Your task to perform on an android device: Search for razer thresher on ebay.com, select the first entry, add it to the cart, then select checkout. Image 0: 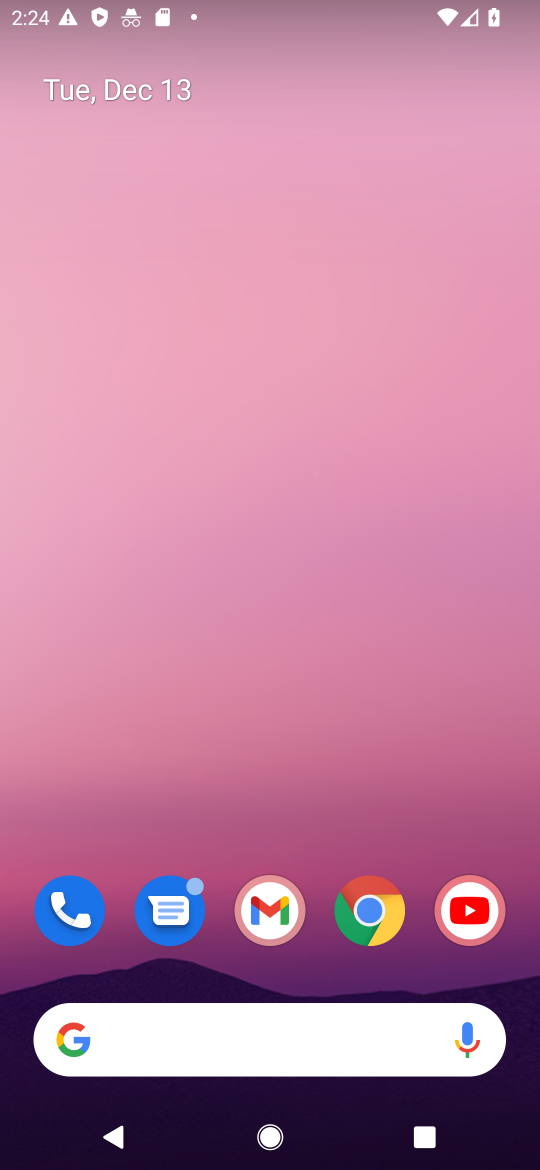
Step 0: click (376, 904)
Your task to perform on an android device: Search for razer thresher on ebay.com, select the first entry, add it to the cart, then select checkout. Image 1: 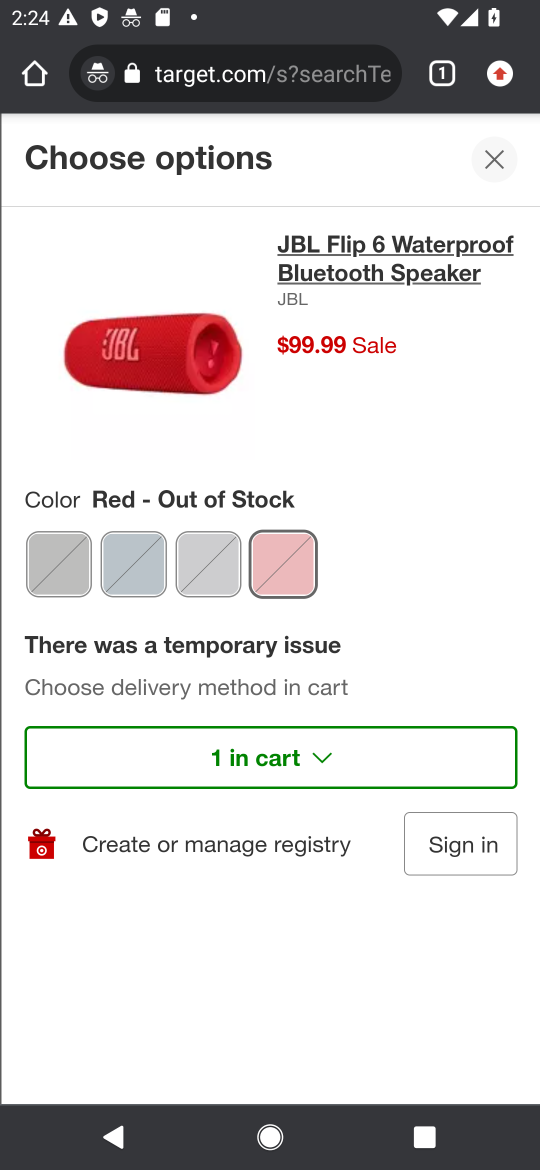
Step 1: click (299, 75)
Your task to perform on an android device: Search for razer thresher on ebay.com, select the first entry, add it to the cart, then select checkout. Image 2: 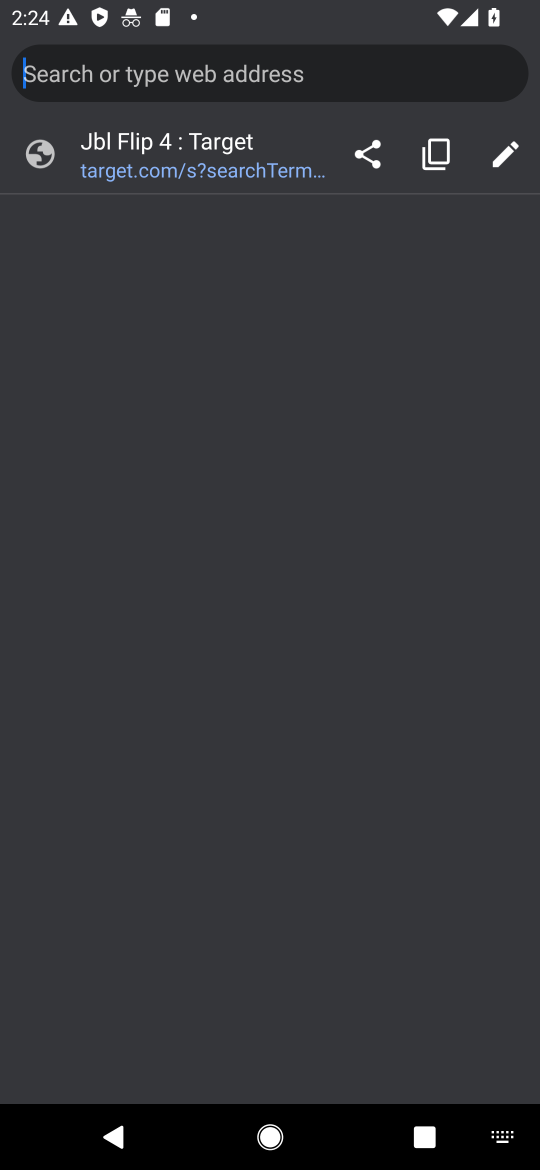
Step 2: type "EBAY"
Your task to perform on an android device: Search for razer thresher on ebay.com, select the first entry, add it to the cart, then select checkout. Image 3: 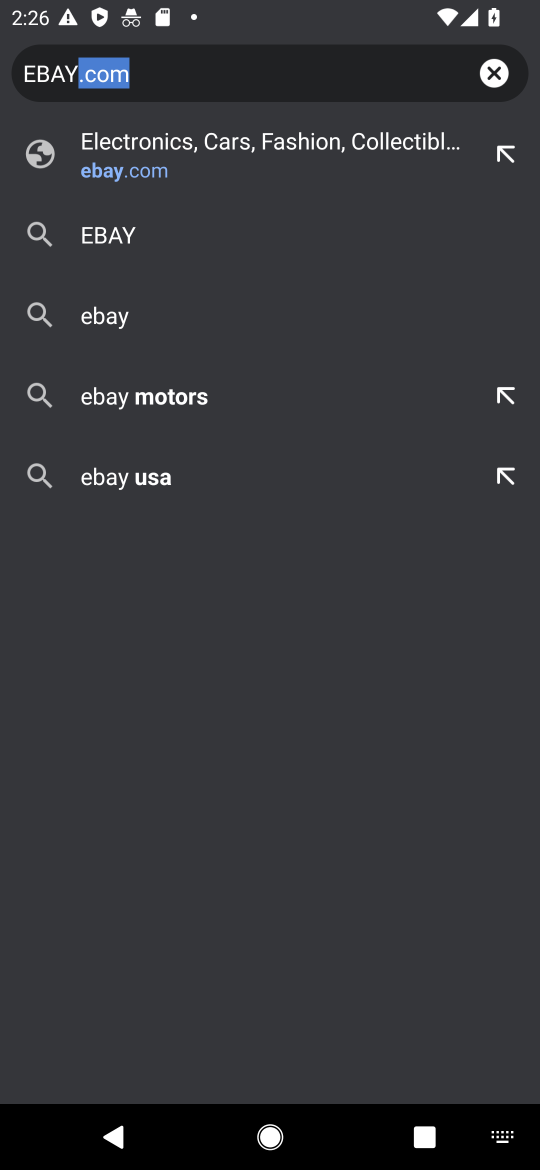
Step 3: click (175, 162)
Your task to perform on an android device: Search for razer thresher on ebay.com, select the first entry, add it to the cart, then select checkout. Image 4: 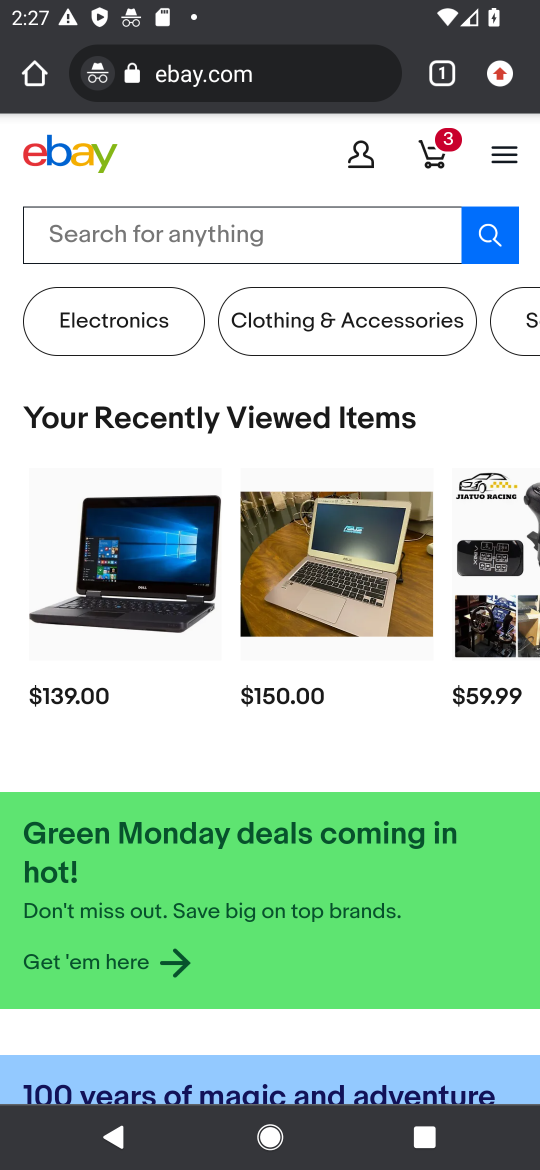
Step 4: click (240, 237)
Your task to perform on an android device: Search for razer thresher on ebay.com, select the first entry, add it to the cart, then select checkout. Image 5: 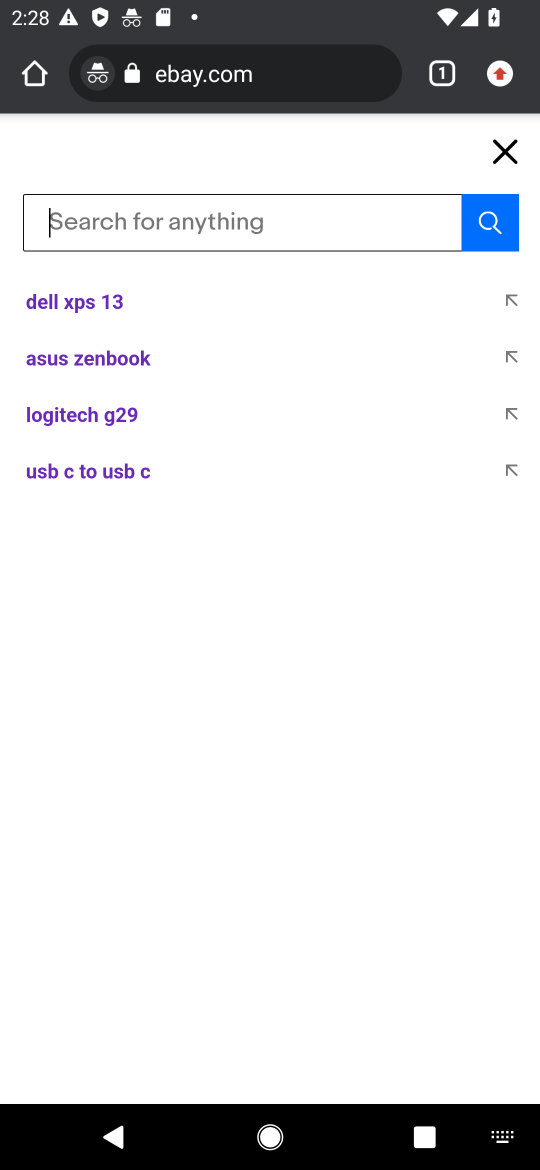
Step 5: type "RAZER THRESHER"
Your task to perform on an android device: Search for razer thresher on ebay.com, select the first entry, add it to the cart, then select checkout. Image 6: 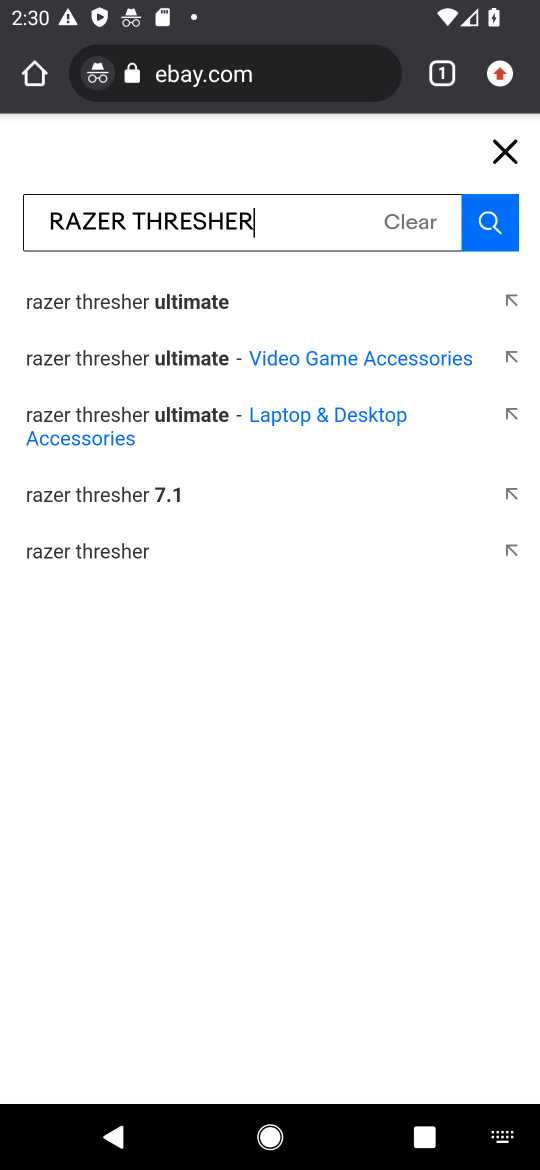
Step 6: click (113, 295)
Your task to perform on an android device: Search for razer thresher on ebay.com, select the first entry, add it to the cart, then select checkout. Image 7: 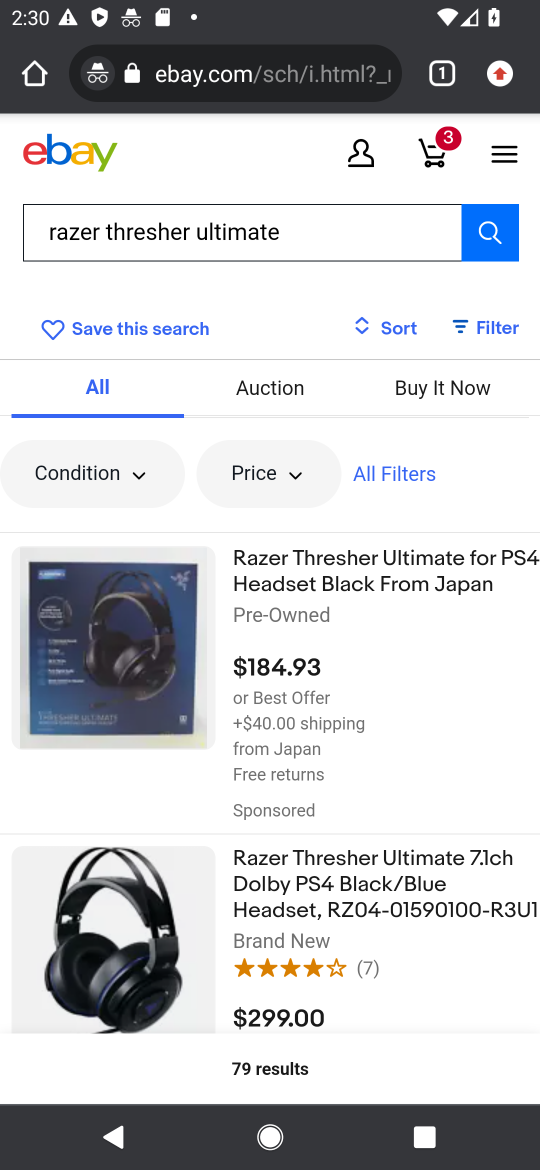
Step 7: click (440, 603)
Your task to perform on an android device: Search for razer thresher on ebay.com, select the first entry, add it to the cart, then select checkout. Image 8: 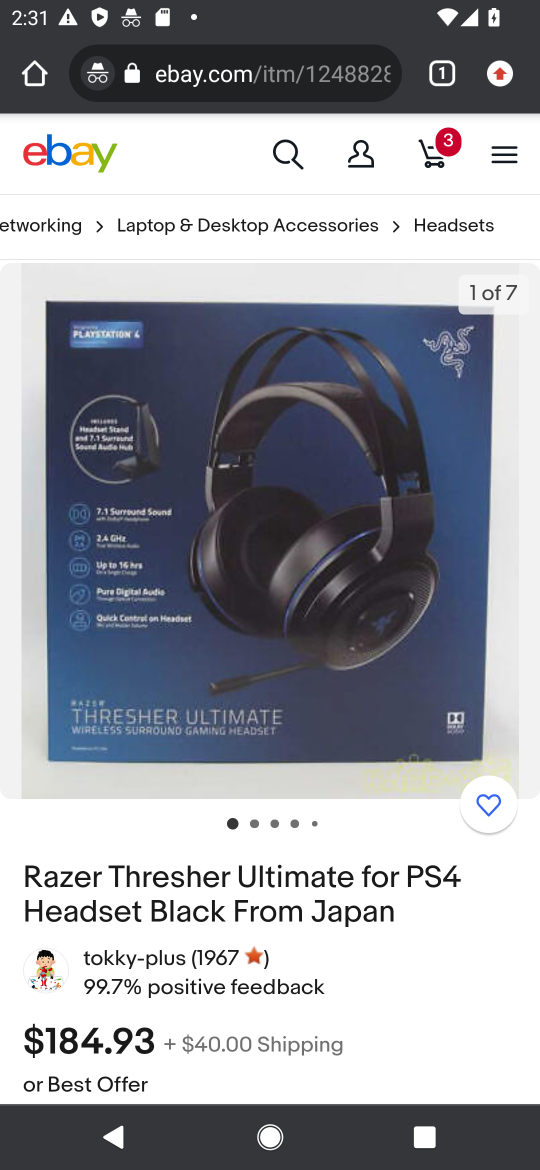
Step 8: task complete